Your task to perform on an android device: Search for the new Nintendo switch on Best Buy Image 0: 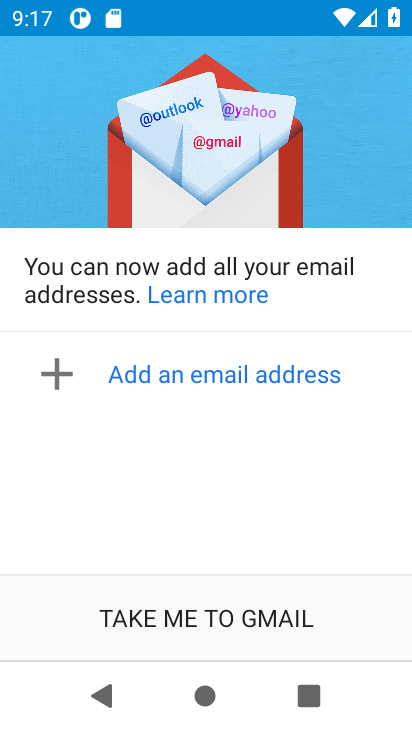
Step 0: task complete